Your task to perform on an android device: check battery use Image 0: 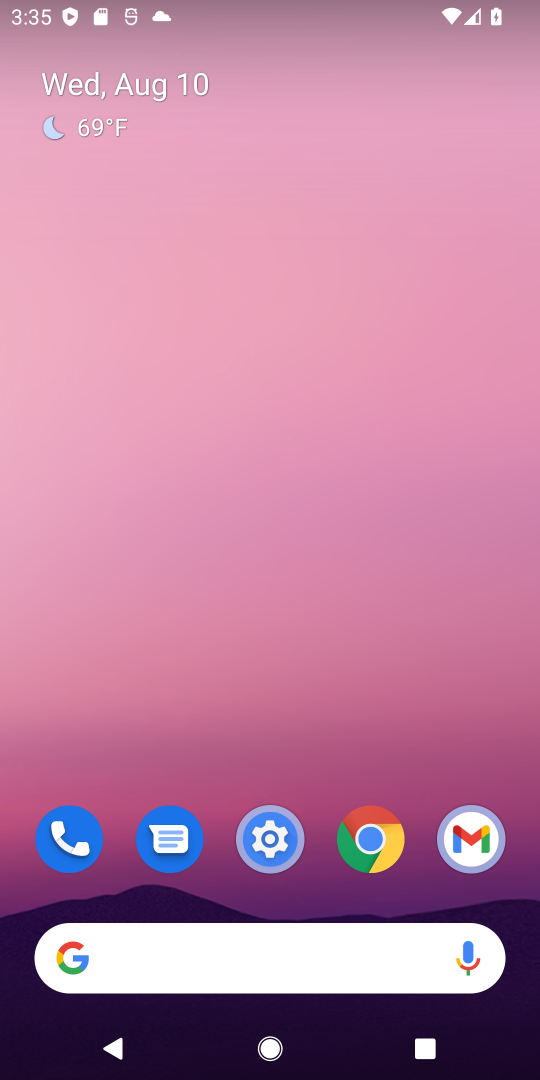
Step 0: click (267, 838)
Your task to perform on an android device: check battery use Image 1: 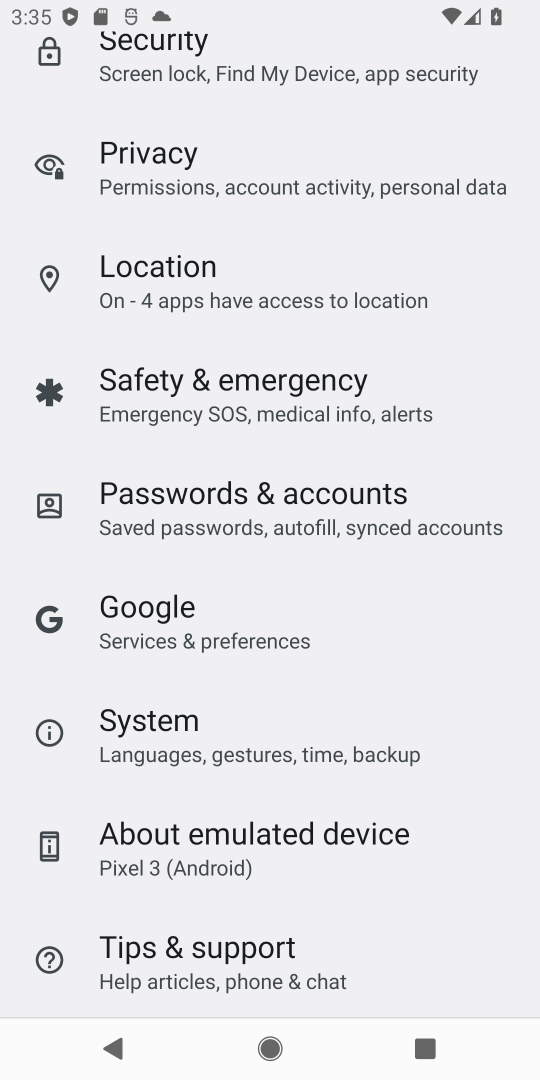
Step 1: drag from (276, 218) to (262, 863)
Your task to perform on an android device: check battery use Image 2: 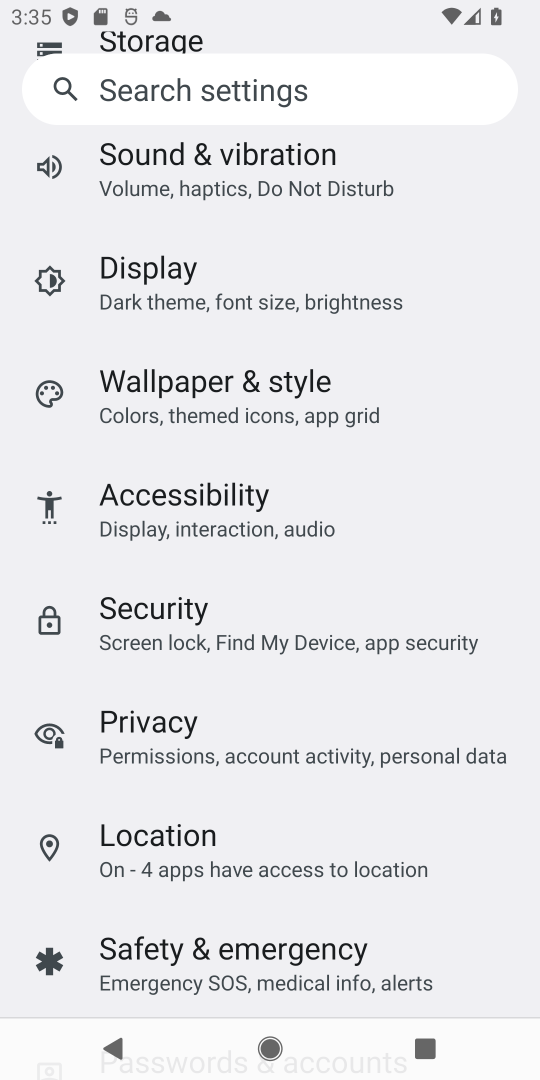
Step 2: drag from (281, 226) to (262, 854)
Your task to perform on an android device: check battery use Image 3: 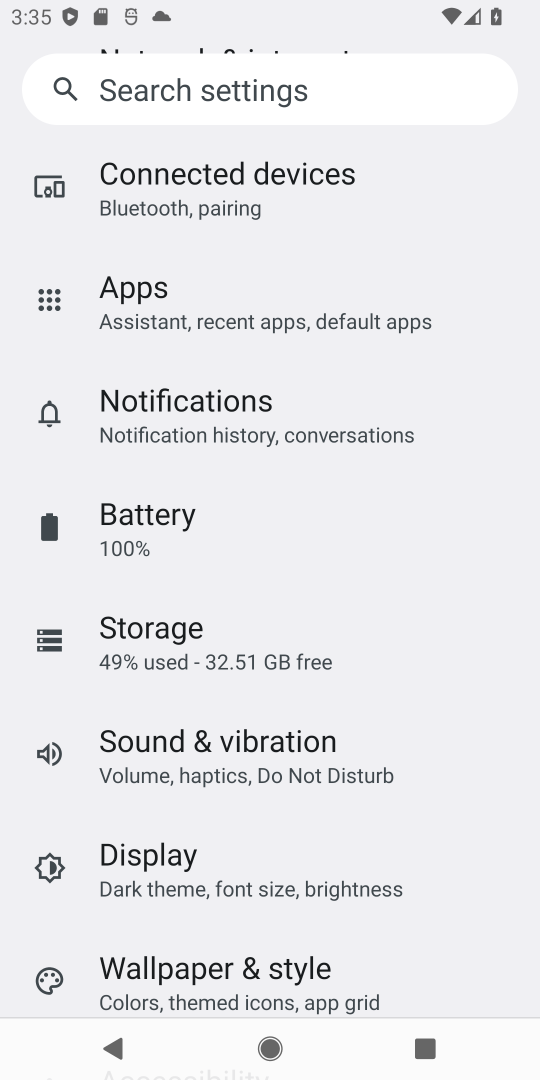
Step 3: click (215, 530)
Your task to perform on an android device: check battery use Image 4: 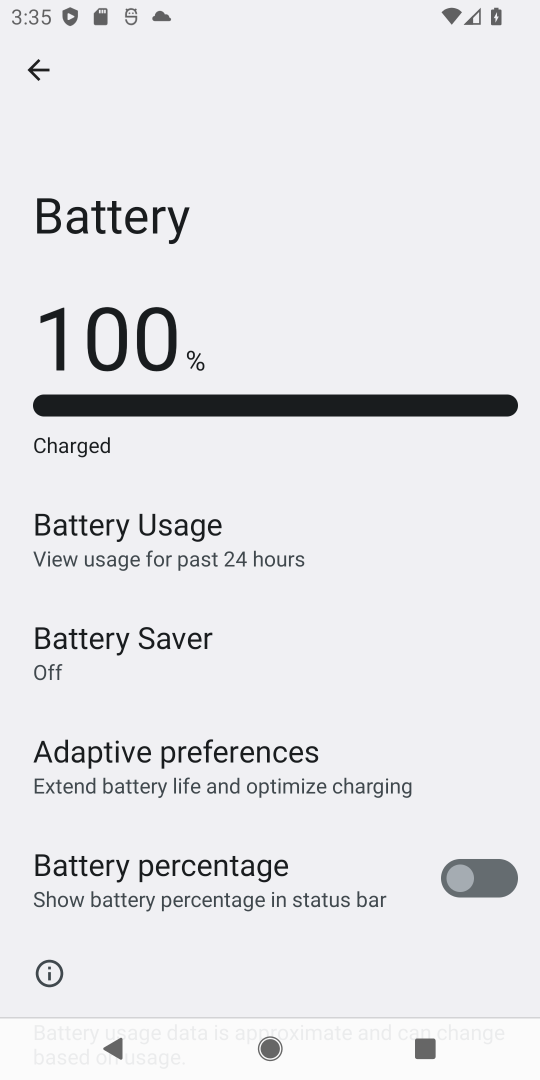
Step 4: click (268, 540)
Your task to perform on an android device: check battery use Image 5: 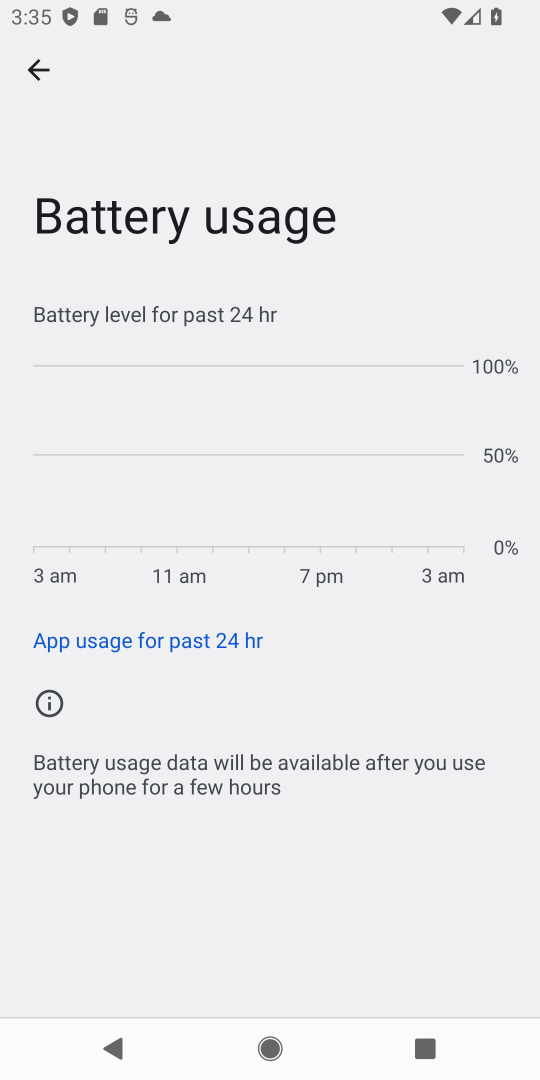
Step 5: task complete